Your task to perform on an android device: Open calendar and show me the second week of next month Image 0: 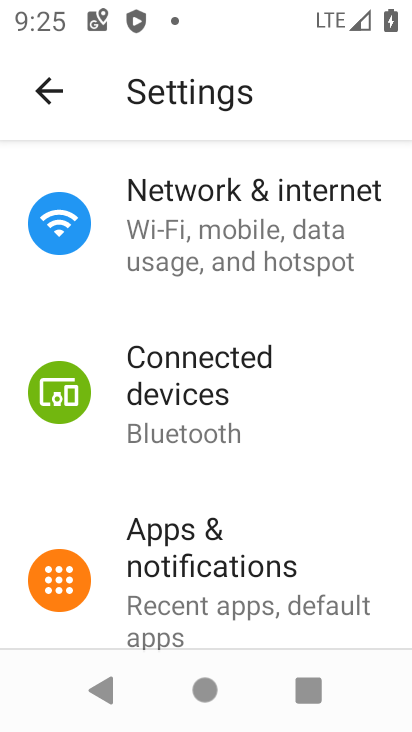
Step 0: press home button
Your task to perform on an android device: Open calendar and show me the second week of next month Image 1: 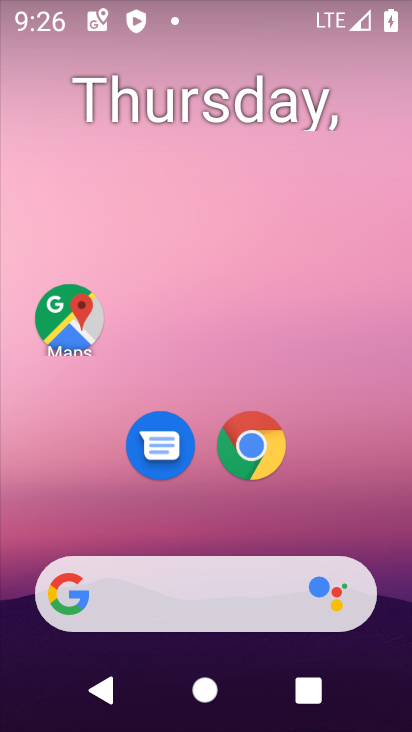
Step 1: drag from (68, 545) to (153, 135)
Your task to perform on an android device: Open calendar and show me the second week of next month Image 2: 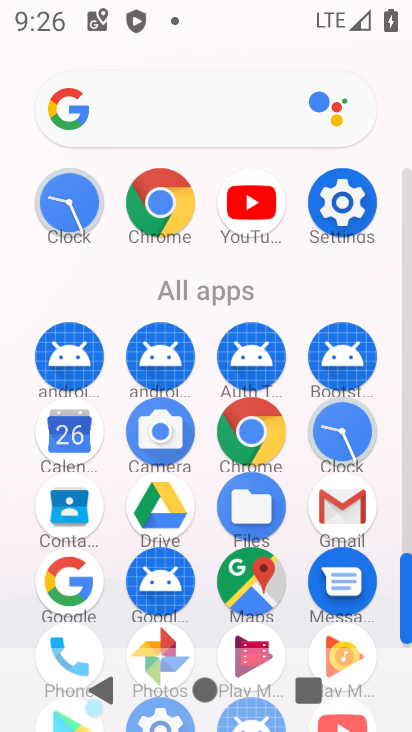
Step 2: click (81, 449)
Your task to perform on an android device: Open calendar and show me the second week of next month Image 3: 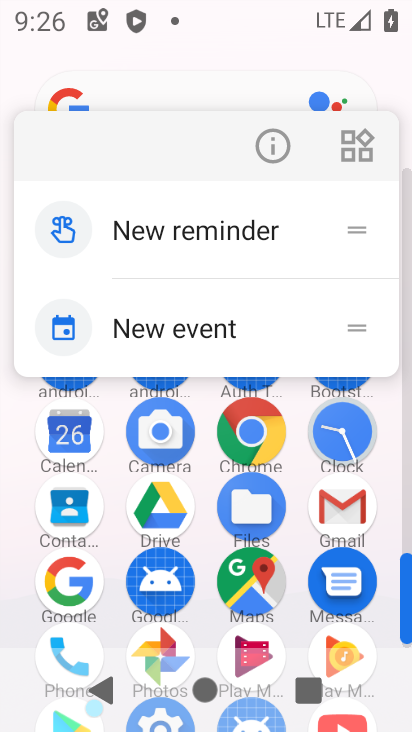
Step 3: click (84, 422)
Your task to perform on an android device: Open calendar and show me the second week of next month Image 4: 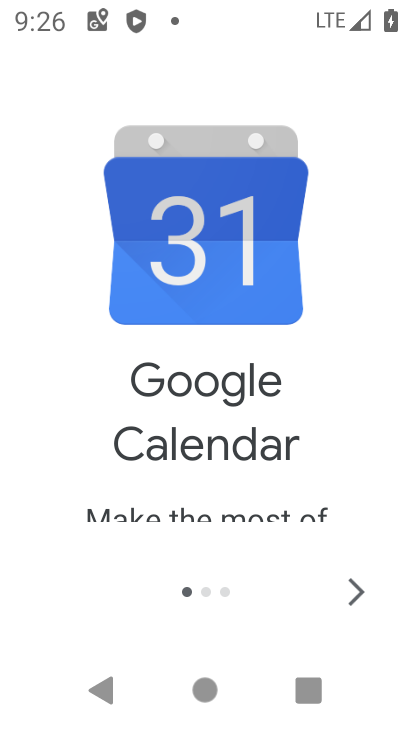
Step 4: click (339, 605)
Your task to perform on an android device: Open calendar and show me the second week of next month Image 5: 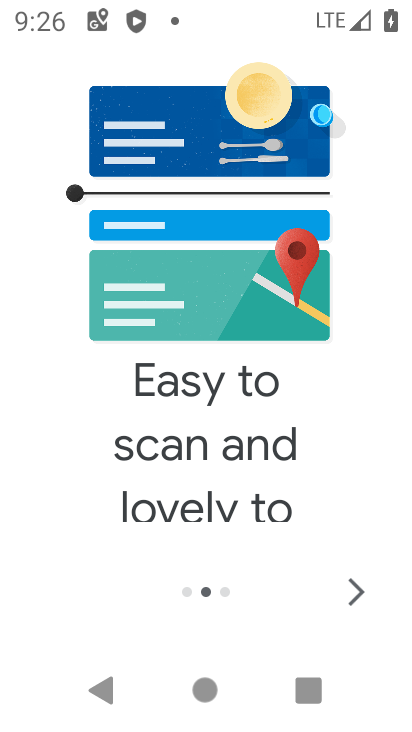
Step 5: click (352, 606)
Your task to perform on an android device: Open calendar and show me the second week of next month Image 6: 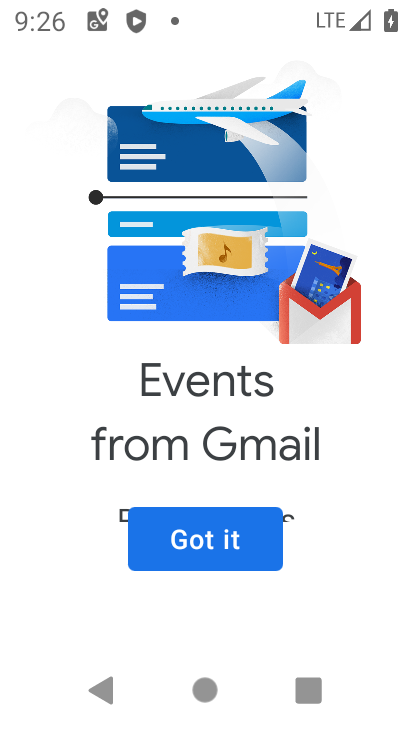
Step 6: click (352, 606)
Your task to perform on an android device: Open calendar and show me the second week of next month Image 7: 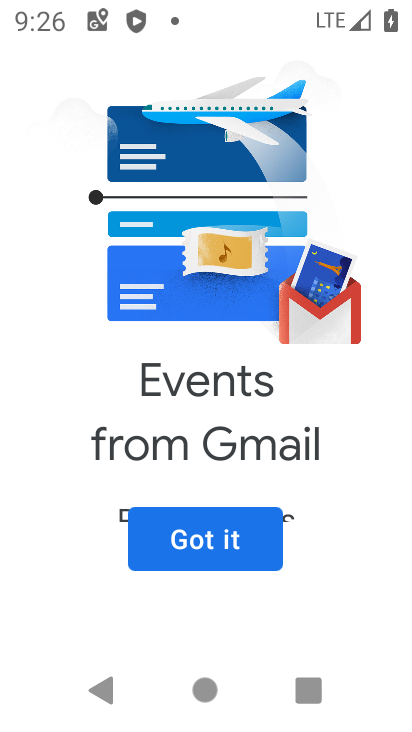
Step 7: click (232, 567)
Your task to perform on an android device: Open calendar and show me the second week of next month Image 8: 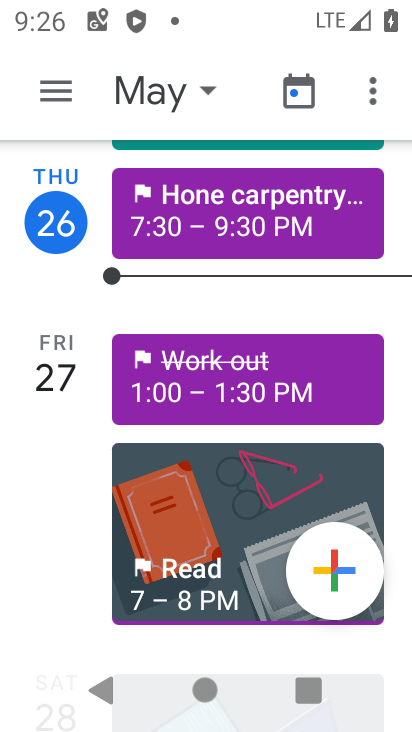
Step 8: click (190, 94)
Your task to perform on an android device: Open calendar and show me the second week of next month Image 9: 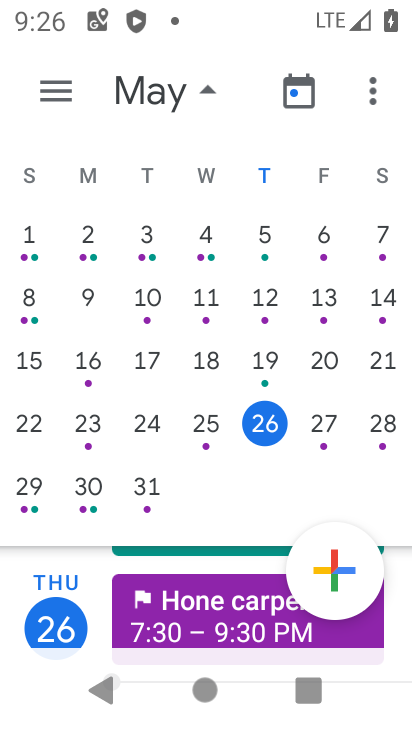
Step 9: drag from (390, 338) to (3, 337)
Your task to perform on an android device: Open calendar and show me the second week of next month Image 10: 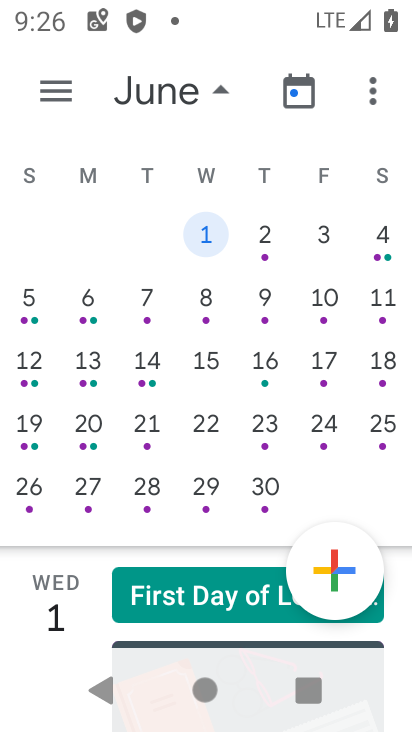
Step 10: click (42, 378)
Your task to perform on an android device: Open calendar and show me the second week of next month Image 11: 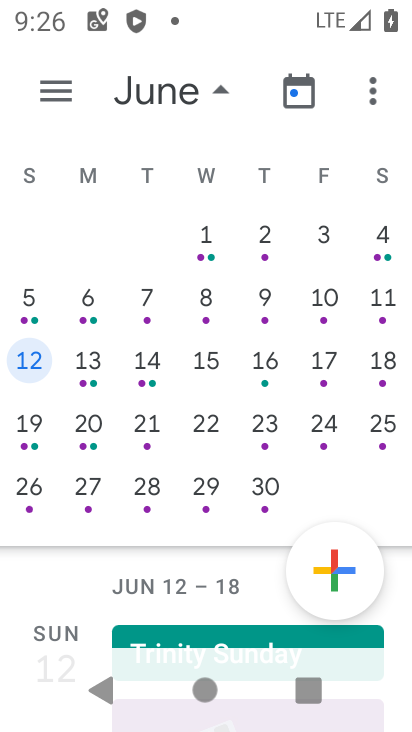
Step 11: click (53, 82)
Your task to perform on an android device: Open calendar and show me the second week of next month Image 12: 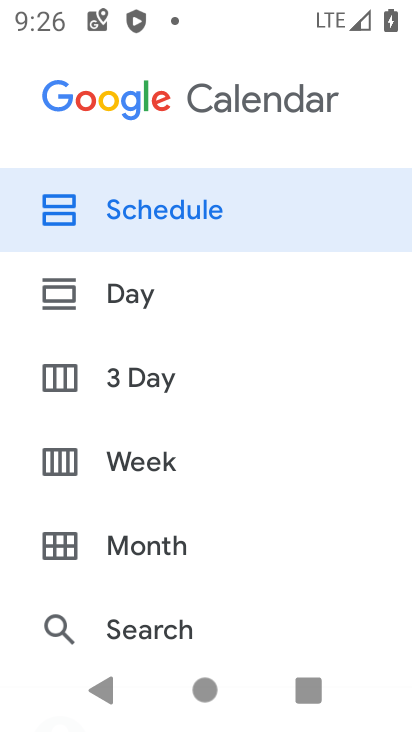
Step 12: click (183, 469)
Your task to perform on an android device: Open calendar and show me the second week of next month Image 13: 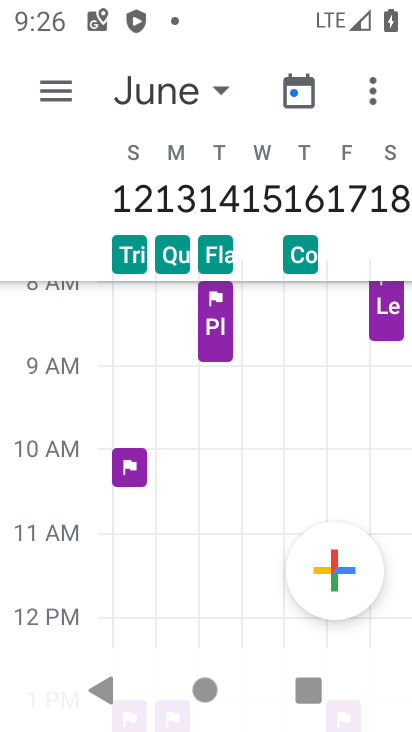
Step 13: task complete